Your task to perform on an android device: Check the weather Image 0: 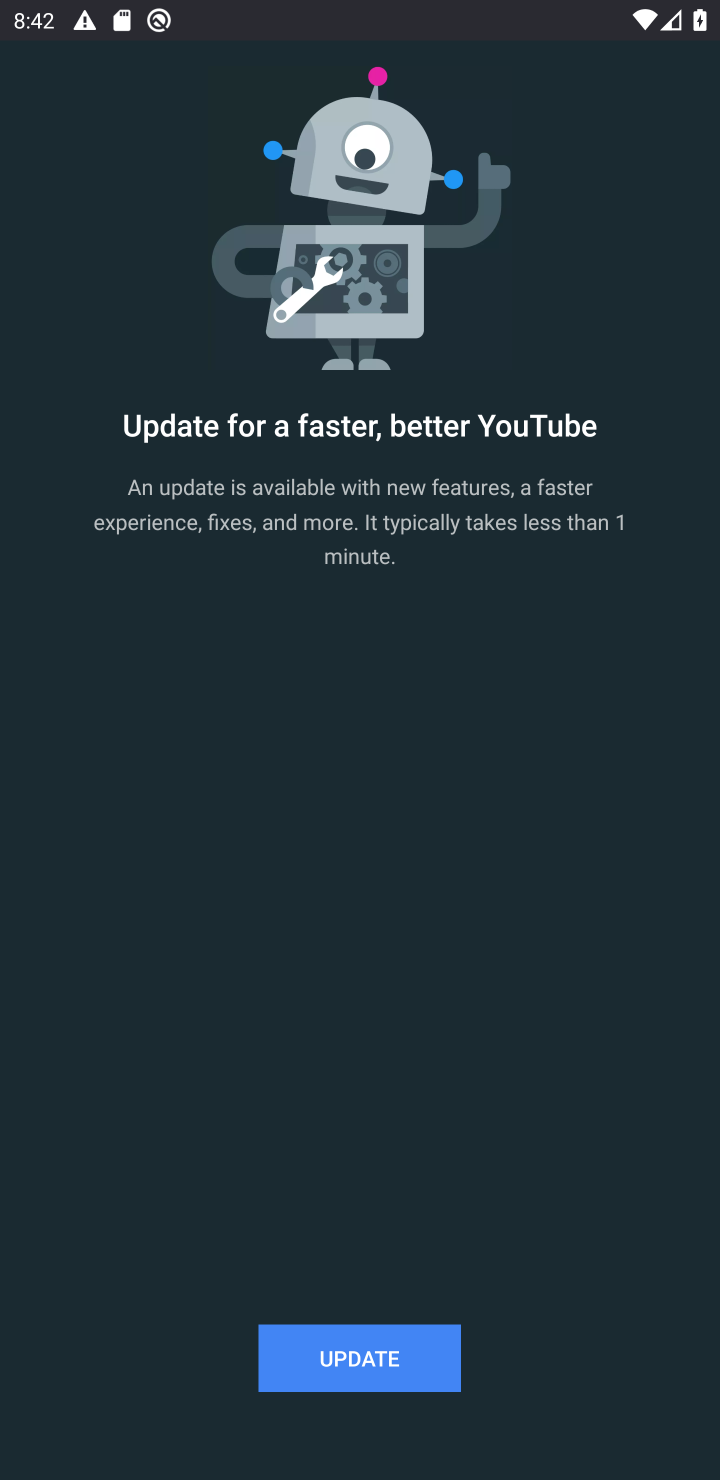
Step 0: press back button
Your task to perform on an android device: Check the weather Image 1: 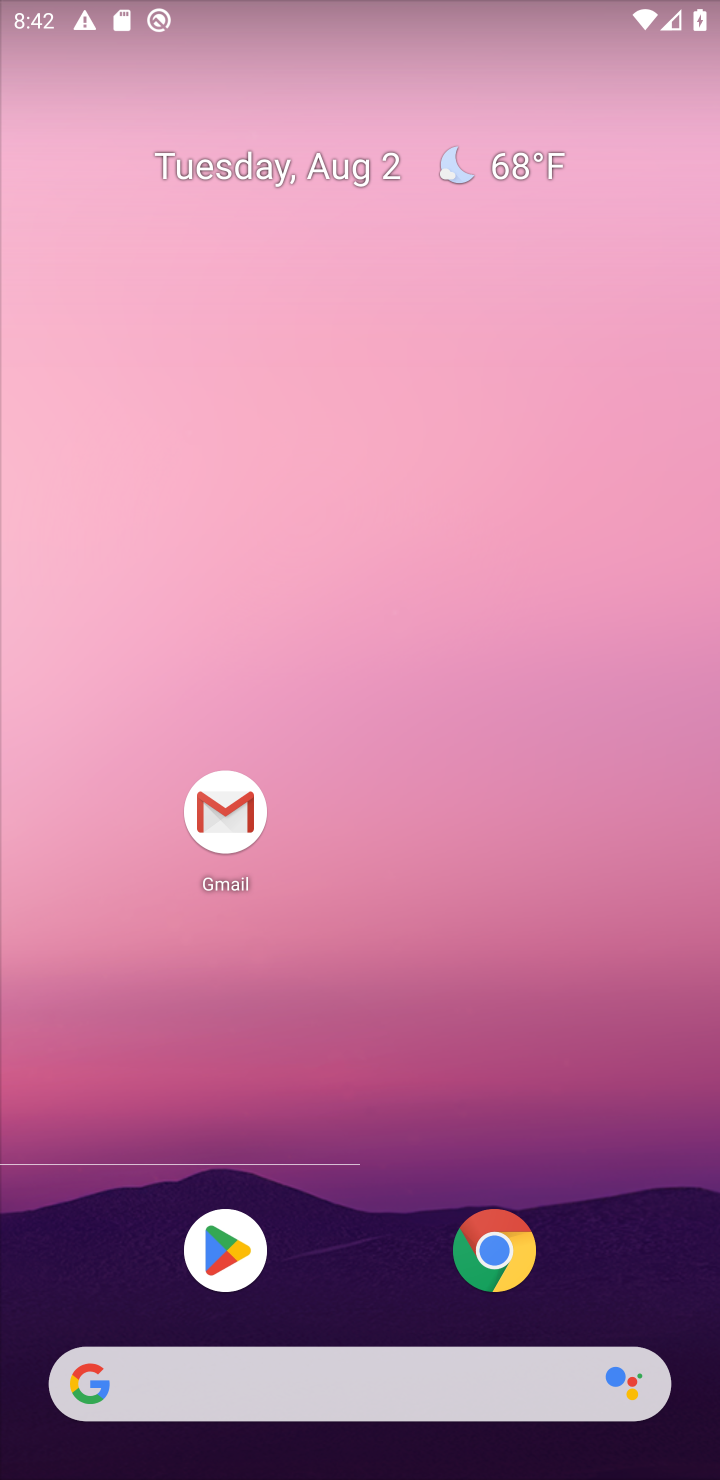
Step 1: drag from (375, 1289) to (357, 34)
Your task to perform on an android device: Check the weather Image 2: 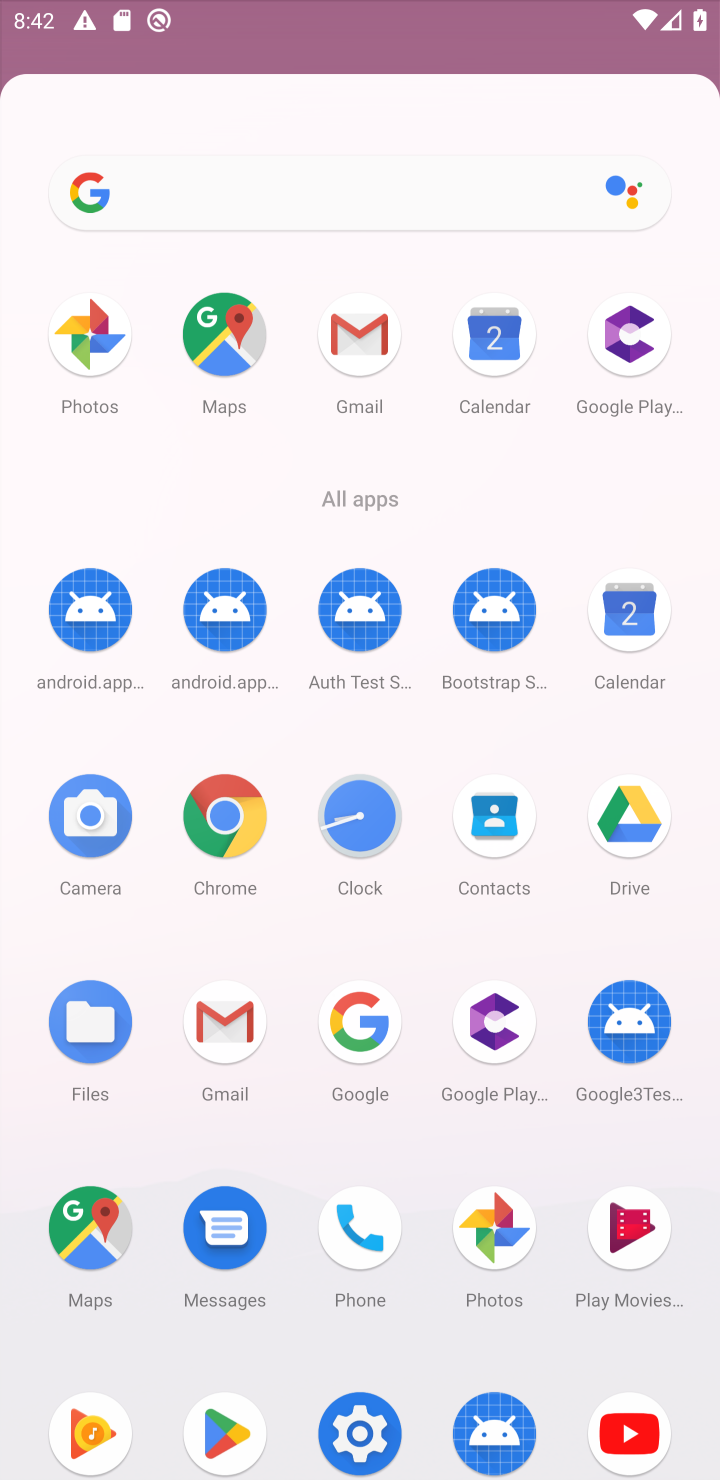
Step 2: drag from (341, 180) to (335, 31)
Your task to perform on an android device: Check the weather Image 3: 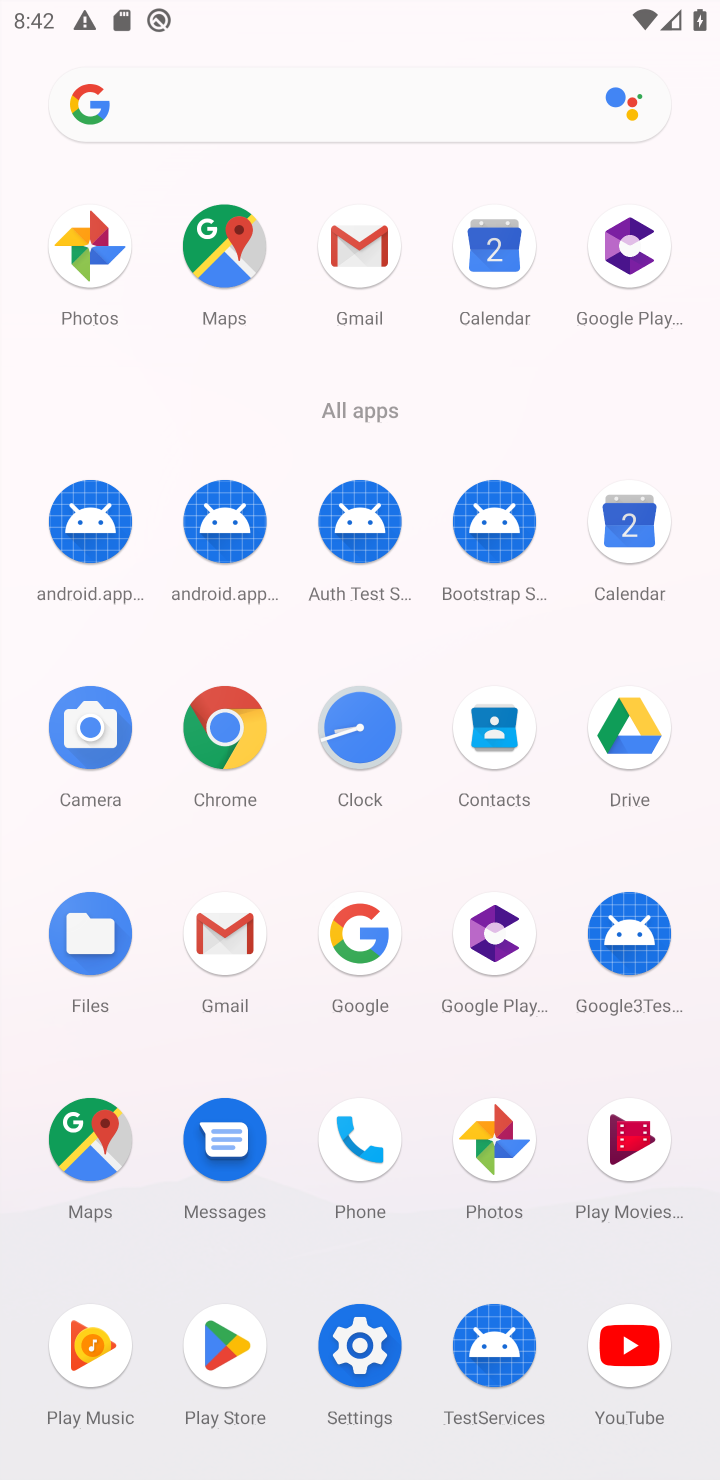
Step 3: click (244, 730)
Your task to perform on an android device: Check the weather Image 4: 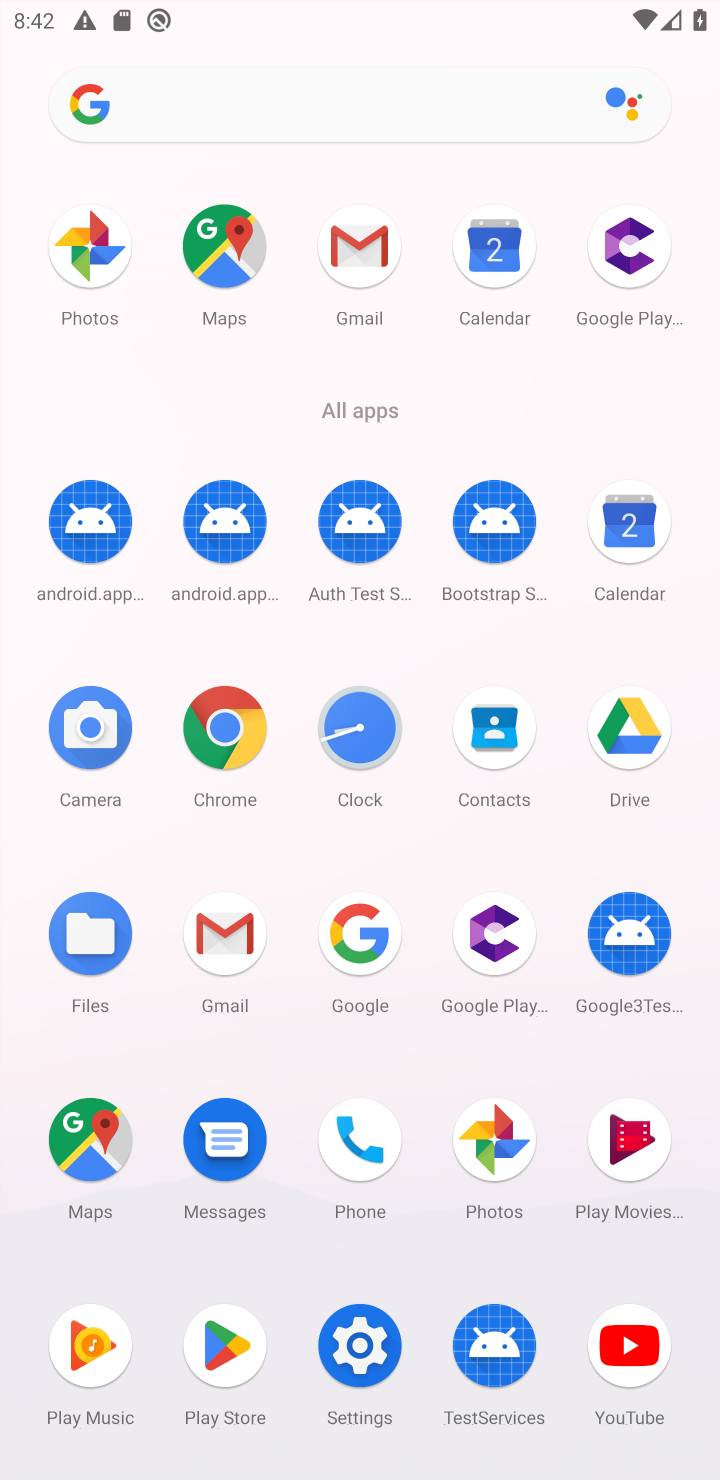
Step 4: click (244, 729)
Your task to perform on an android device: Check the weather Image 5: 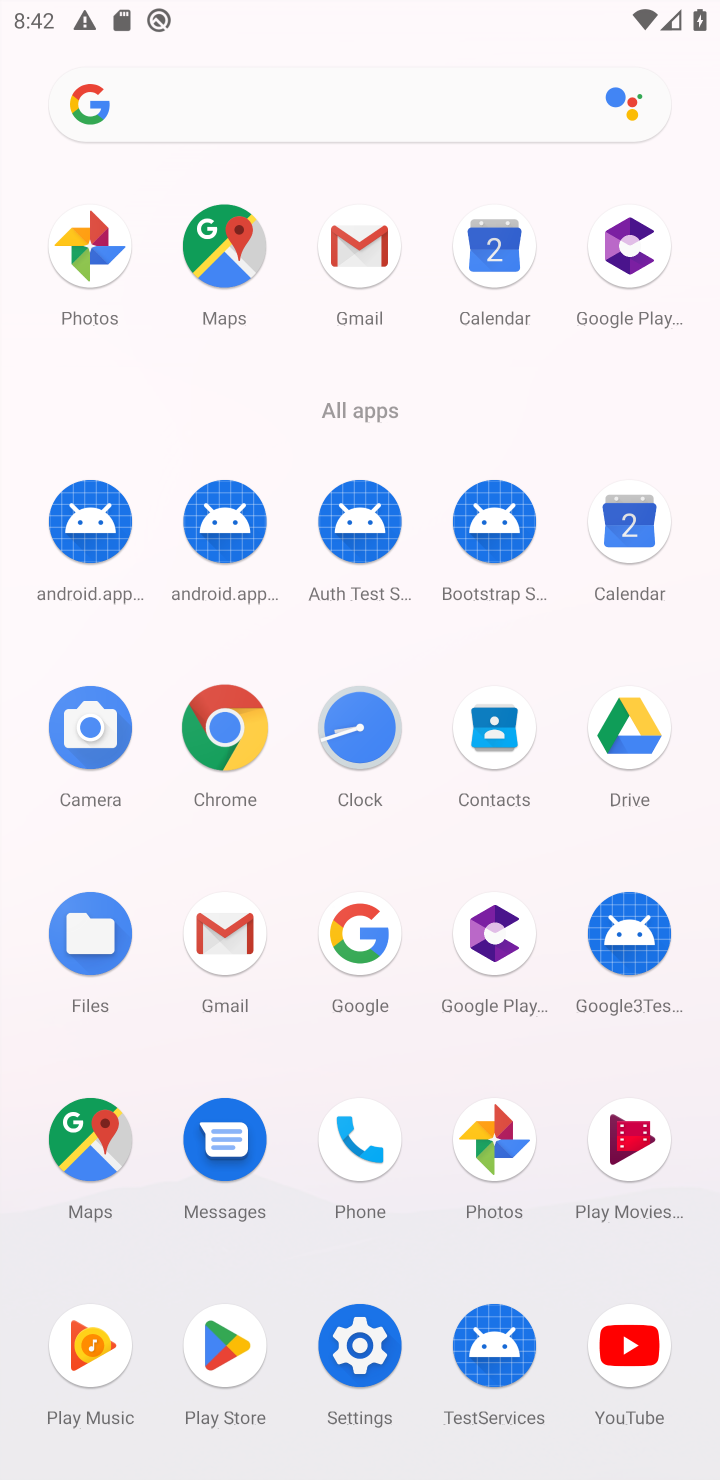
Step 5: click (242, 727)
Your task to perform on an android device: Check the weather Image 6: 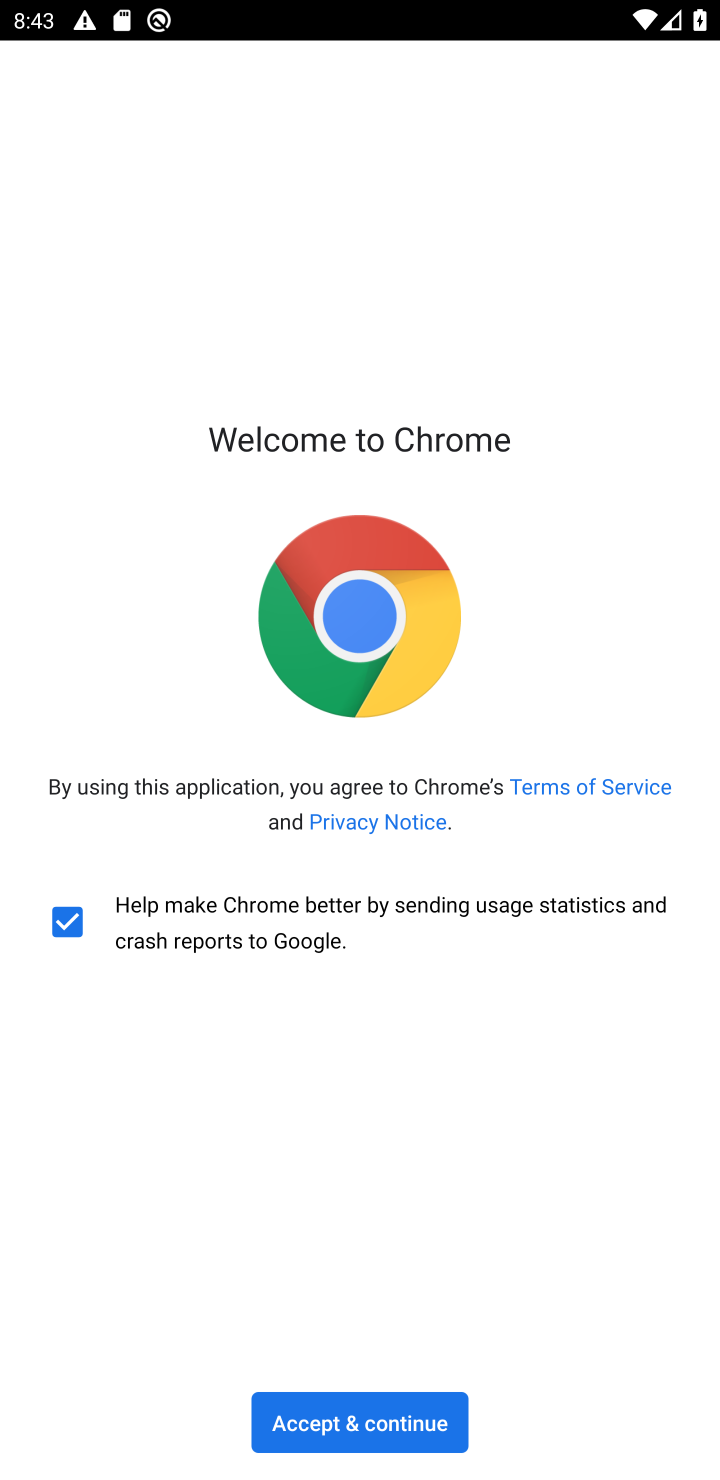
Step 6: click (340, 1415)
Your task to perform on an android device: Check the weather Image 7: 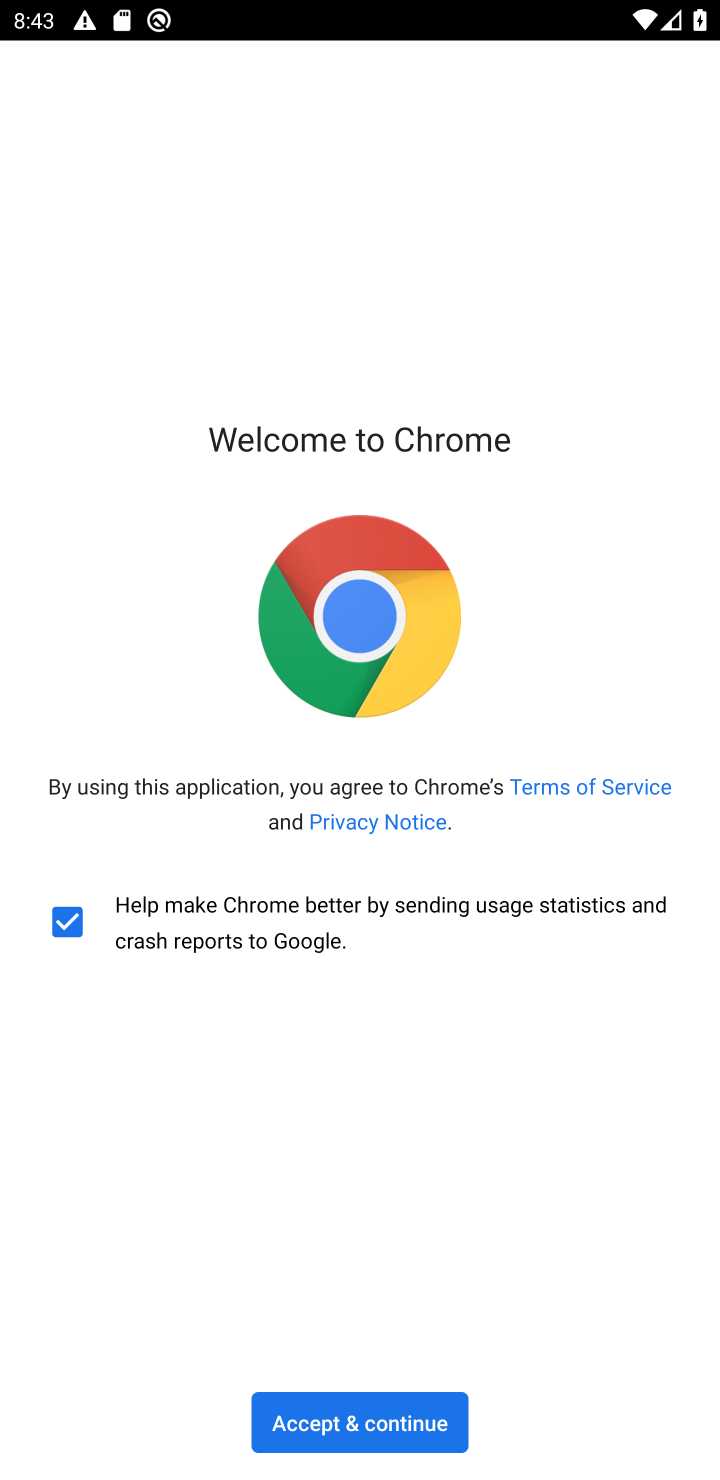
Step 7: click (343, 1415)
Your task to perform on an android device: Check the weather Image 8: 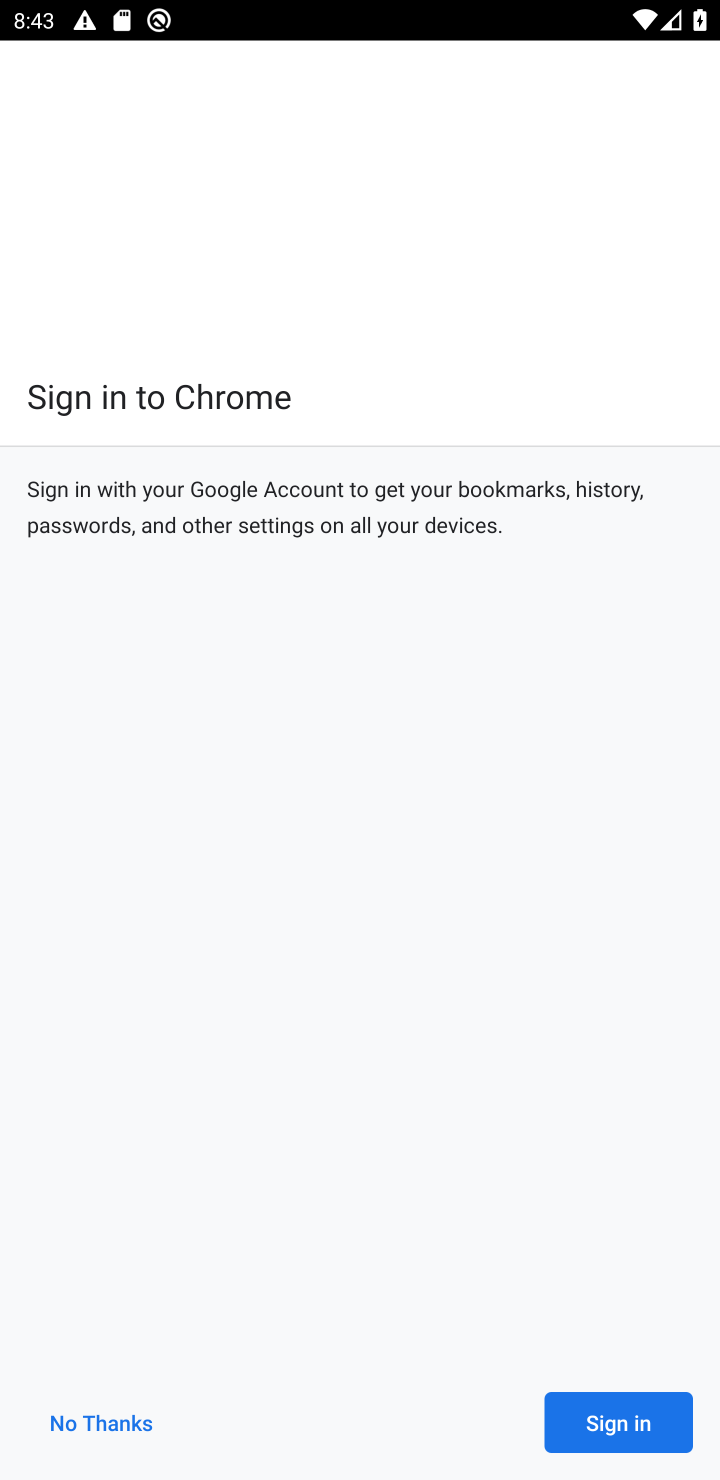
Step 8: click (343, 1415)
Your task to perform on an android device: Check the weather Image 9: 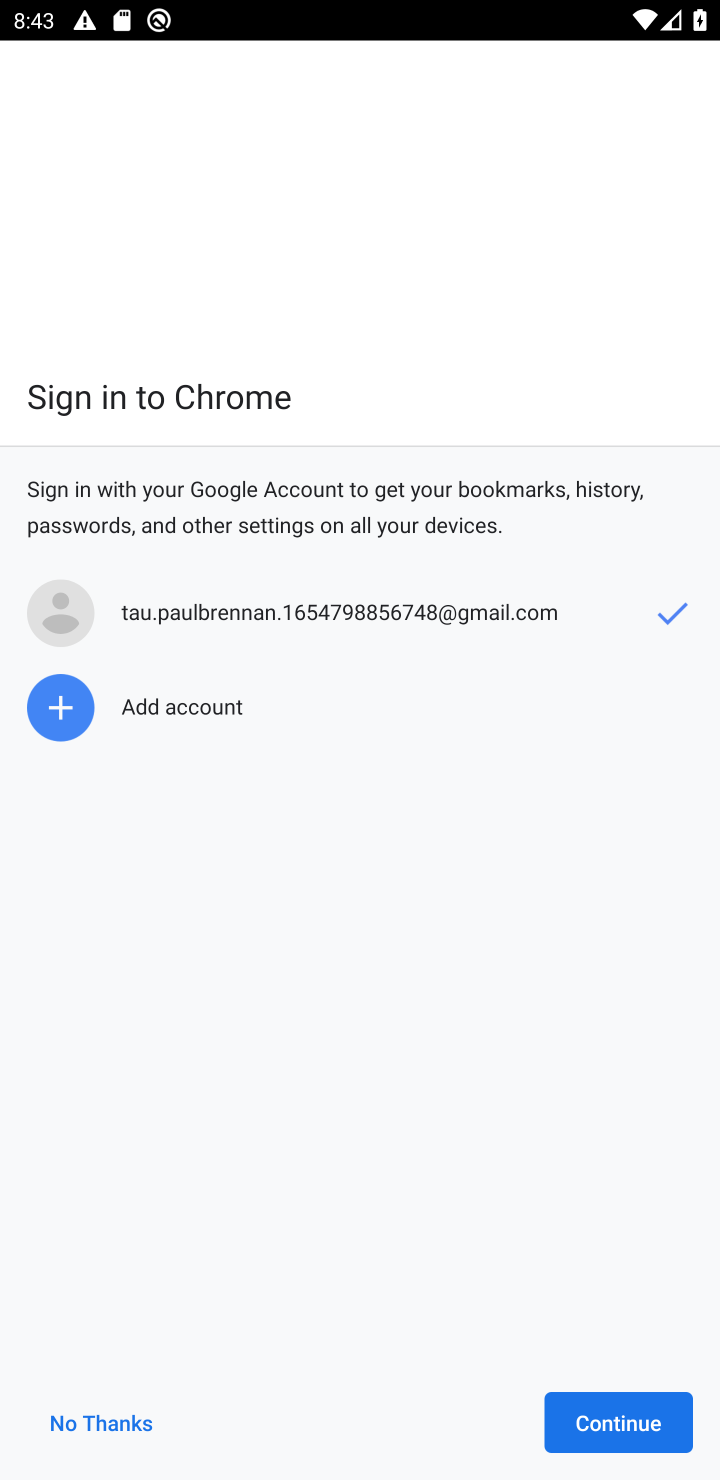
Step 9: click (345, 1413)
Your task to perform on an android device: Check the weather Image 10: 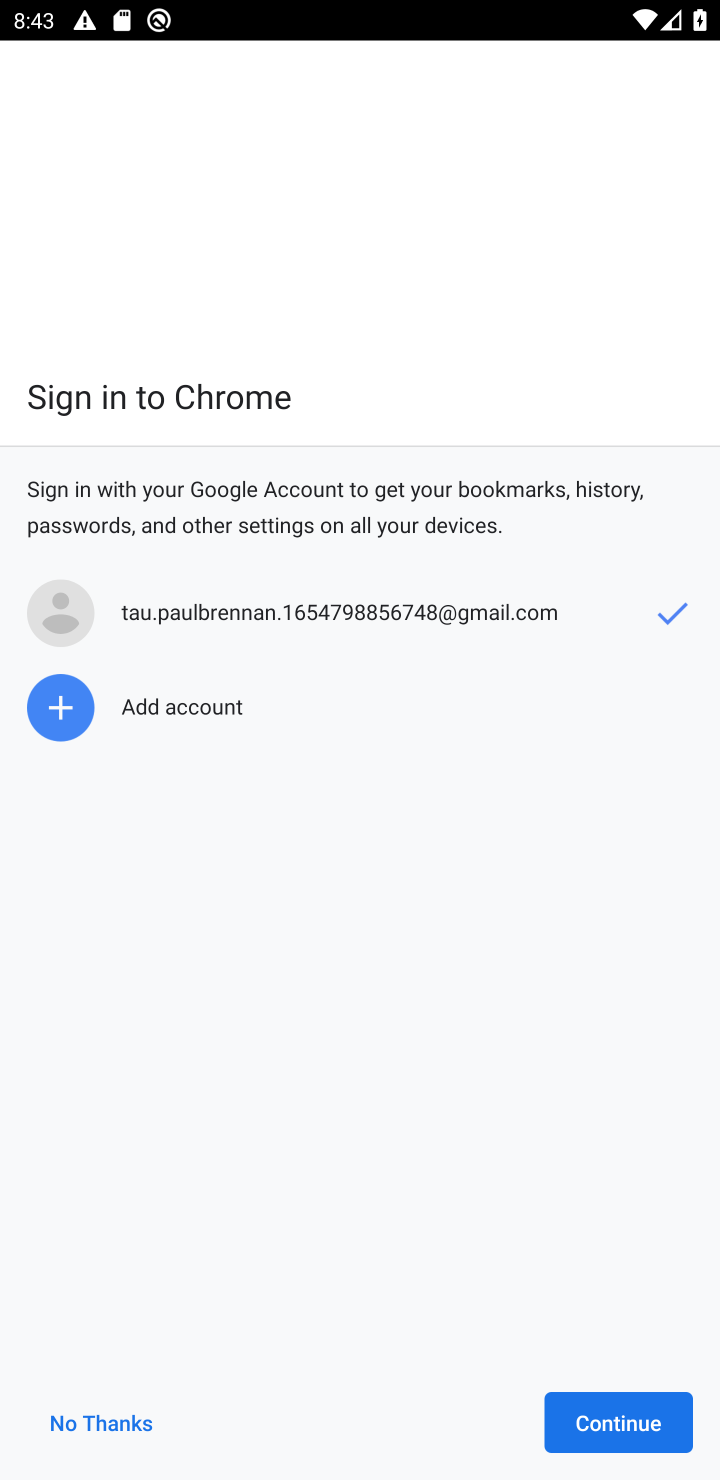
Step 10: click (374, 1401)
Your task to perform on an android device: Check the weather Image 11: 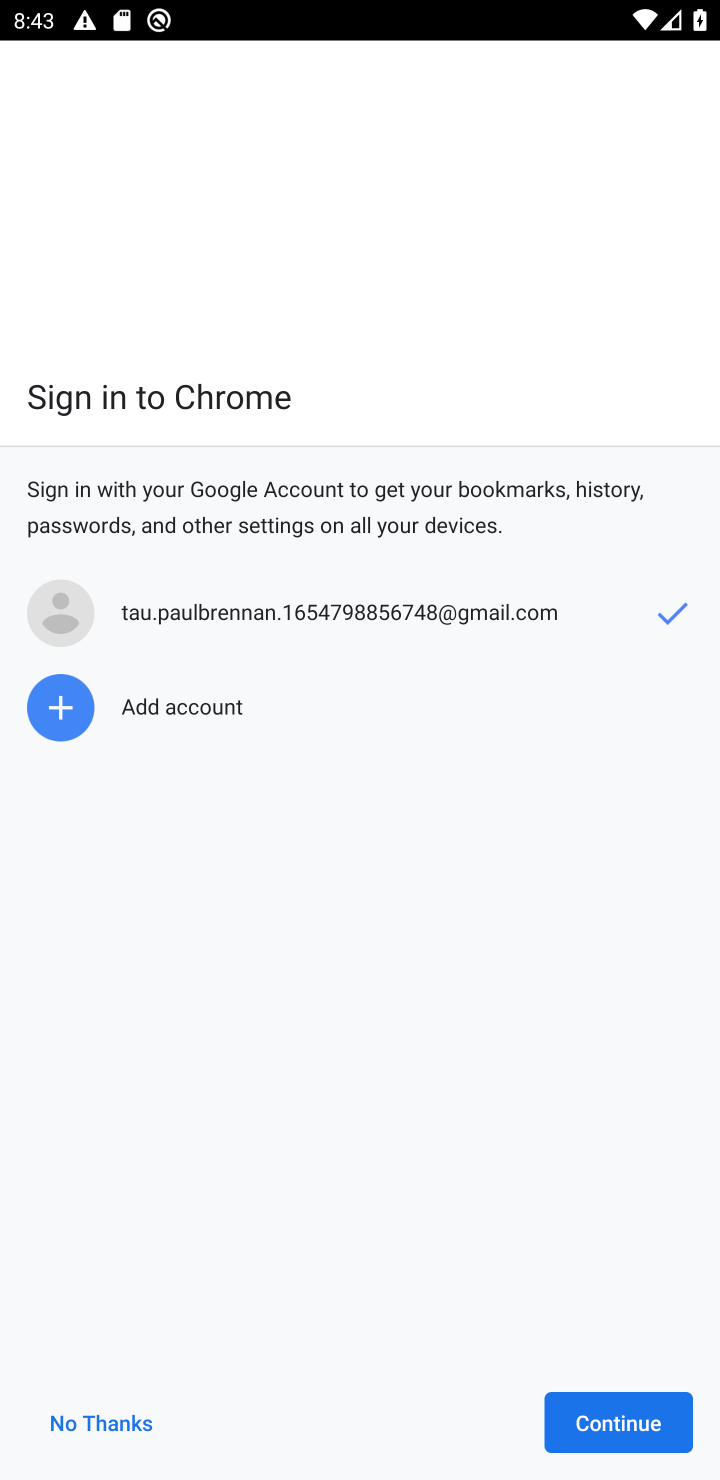
Step 11: click (374, 1401)
Your task to perform on an android device: Check the weather Image 12: 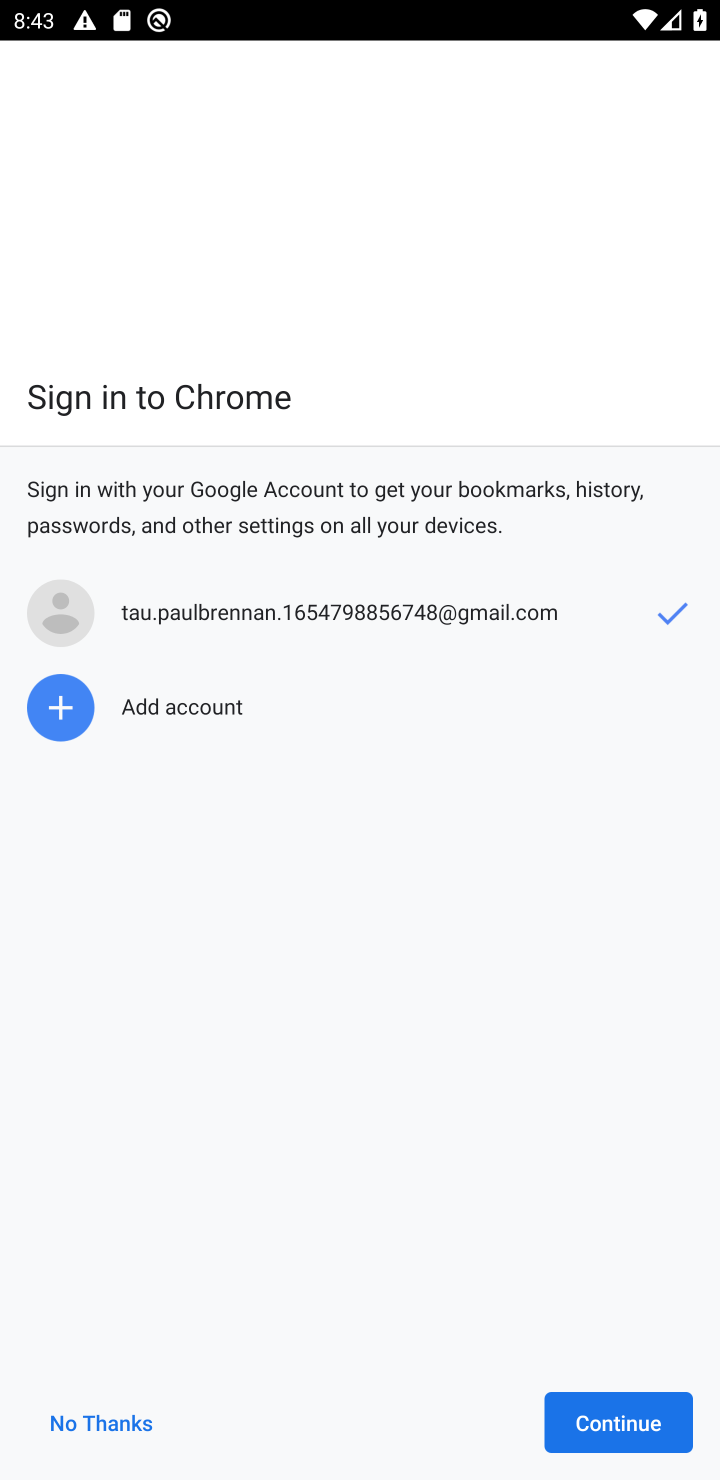
Step 12: click (609, 1416)
Your task to perform on an android device: Check the weather Image 13: 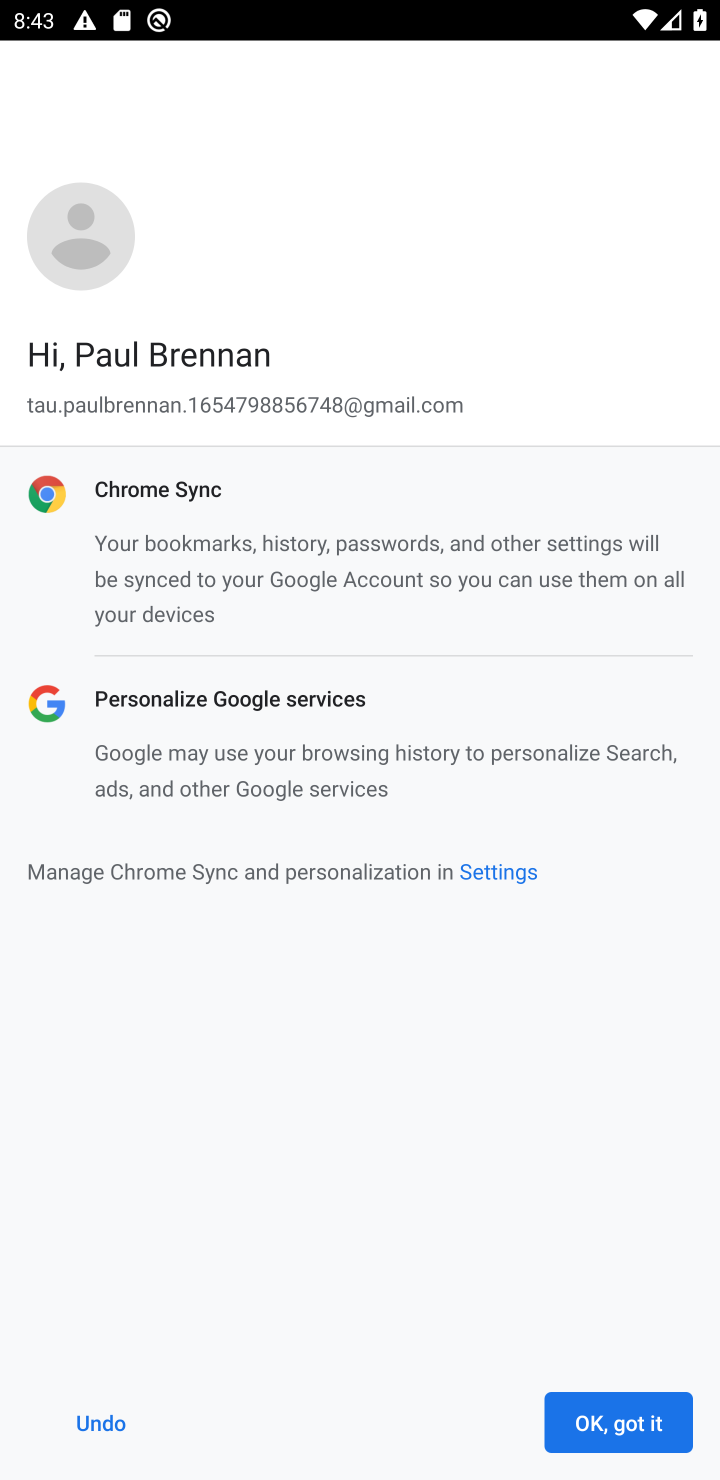
Step 13: click (612, 1407)
Your task to perform on an android device: Check the weather Image 14: 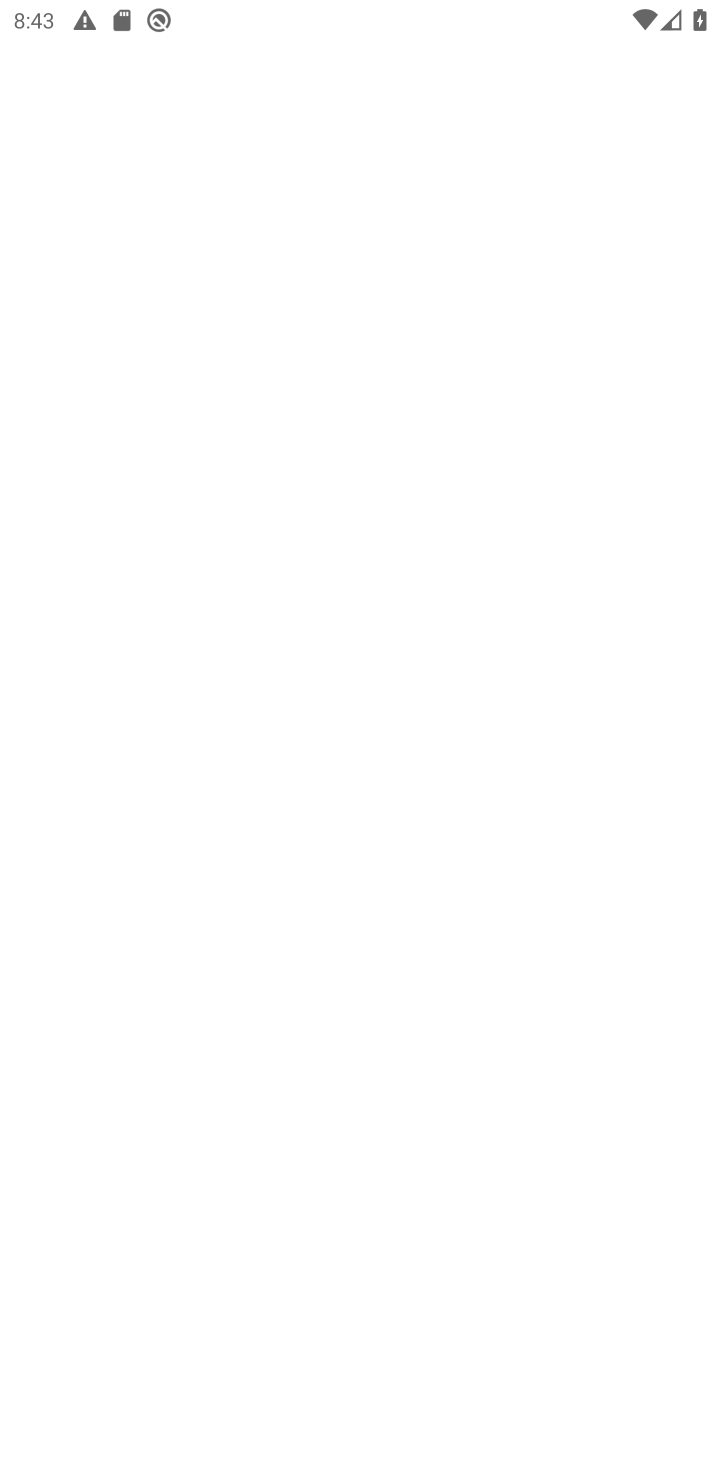
Step 14: click (612, 1405)
Your task to perform on an android device: Check the weather Image 15: 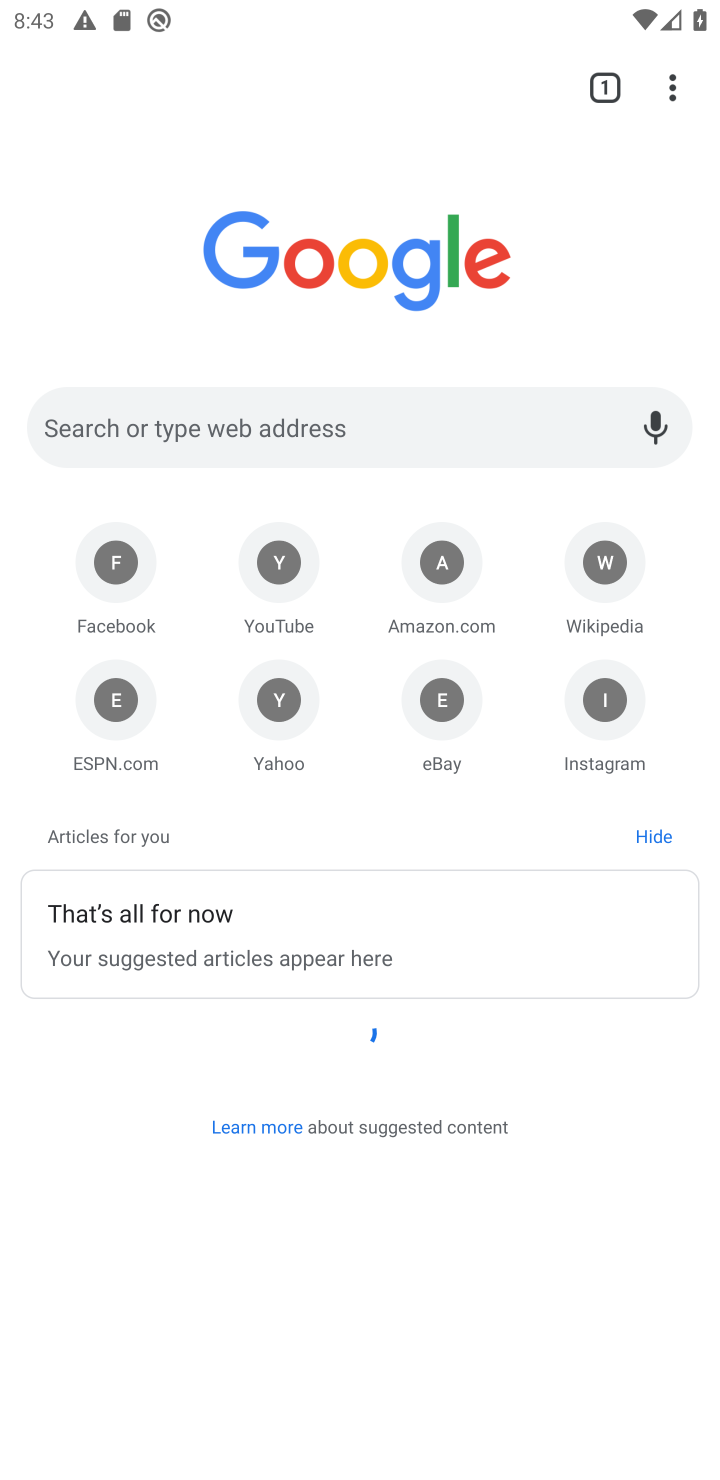
Step 15: click (139, 409)
Your task to perform on an android device: Check the weather Image 16: 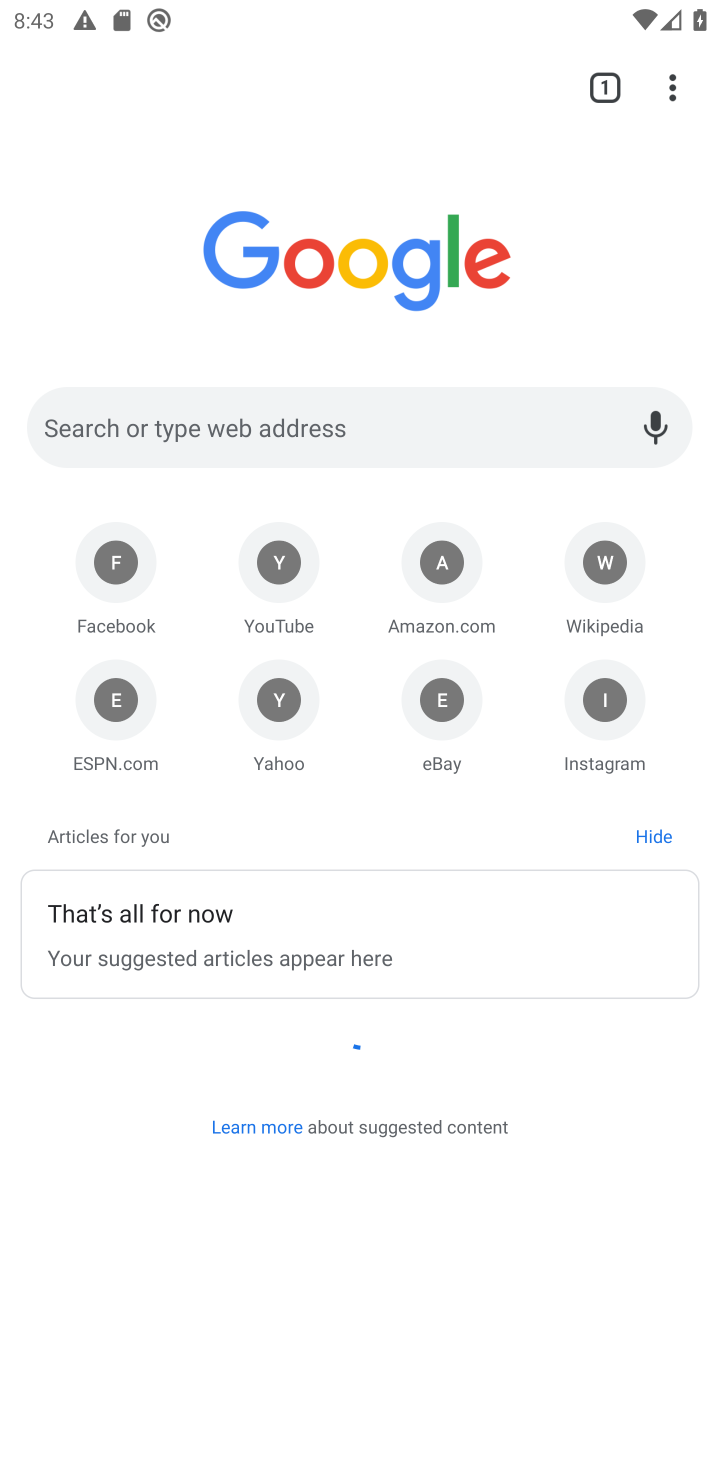
Step 16: click (139, 418)
Your task to perform on an android device: Check the weather Image 17: 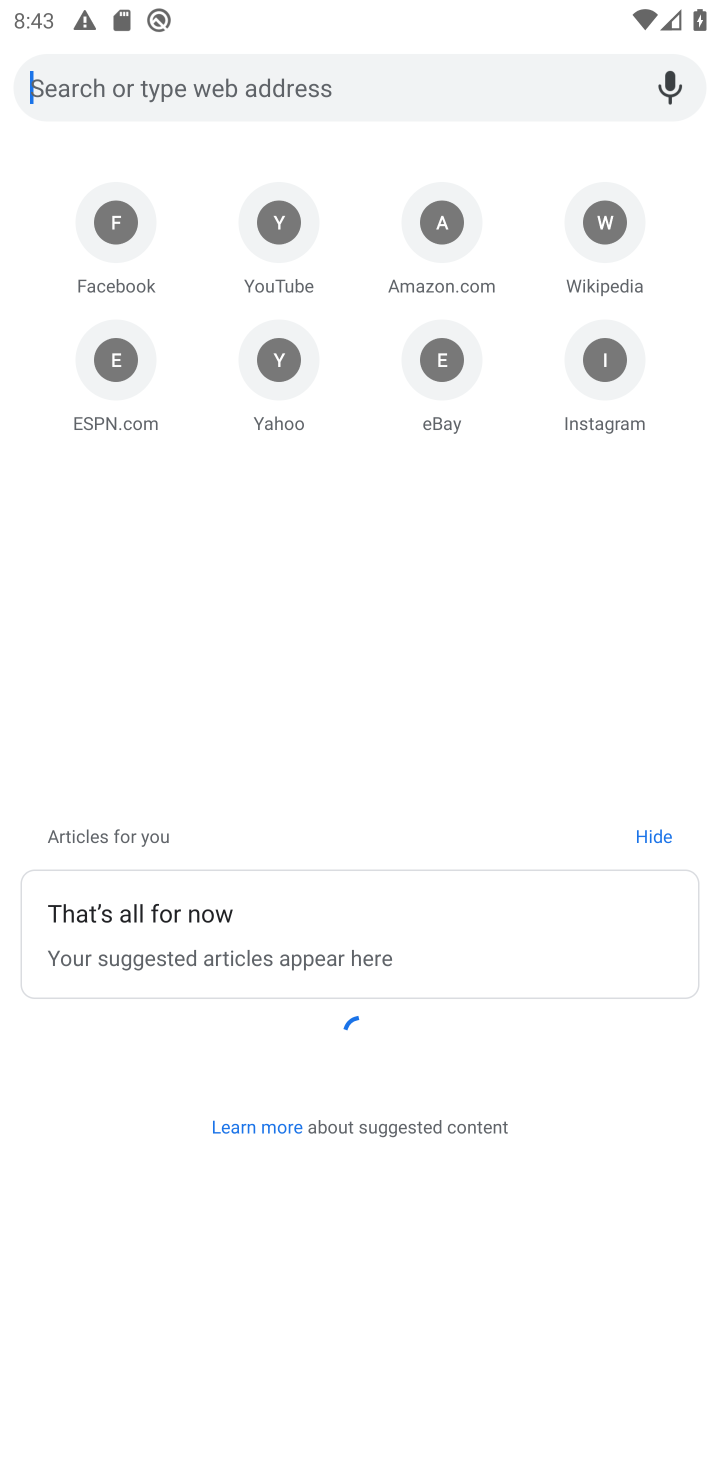
Step 17: click (139, 421)
Your task to perform on an android device: Check the weather Image 18: 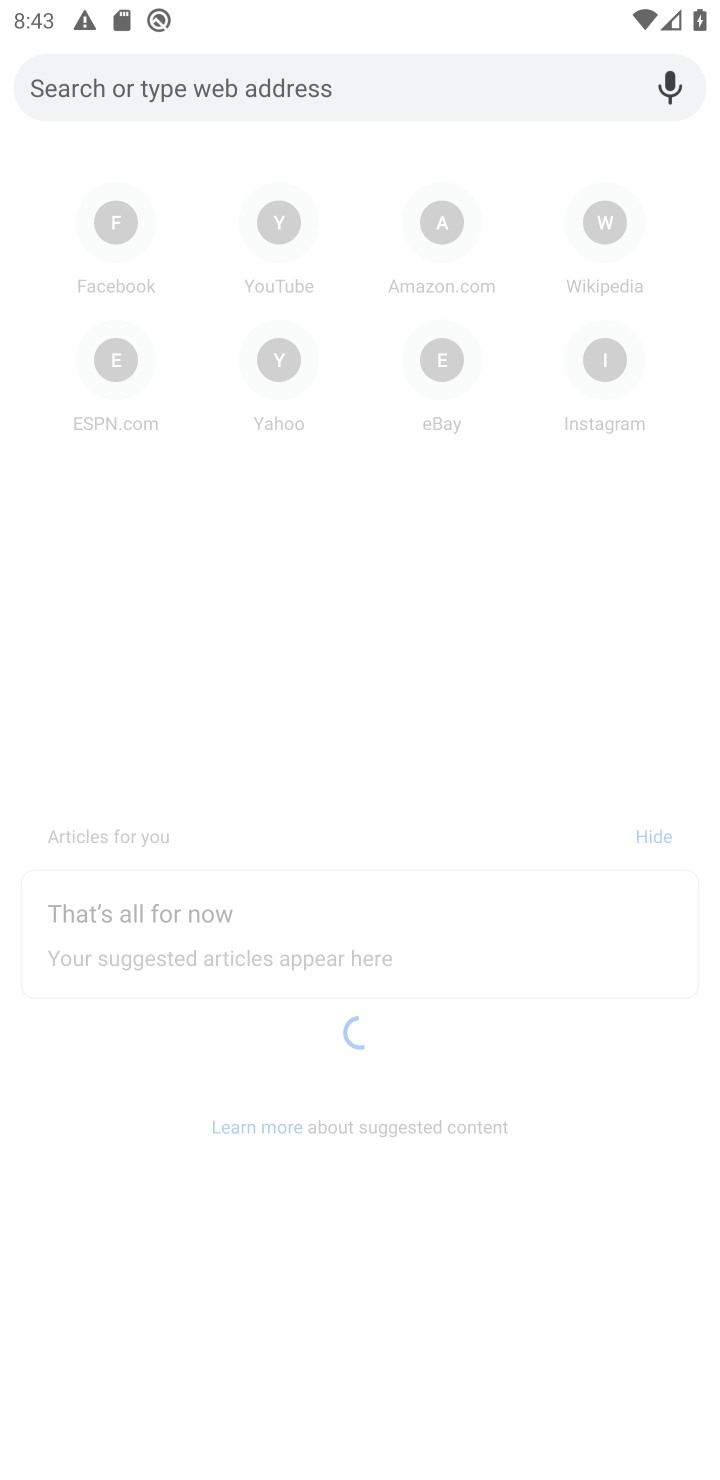
Step 18: click (143, 421)
Your task to perform on an android device: Check the weather Image 19: 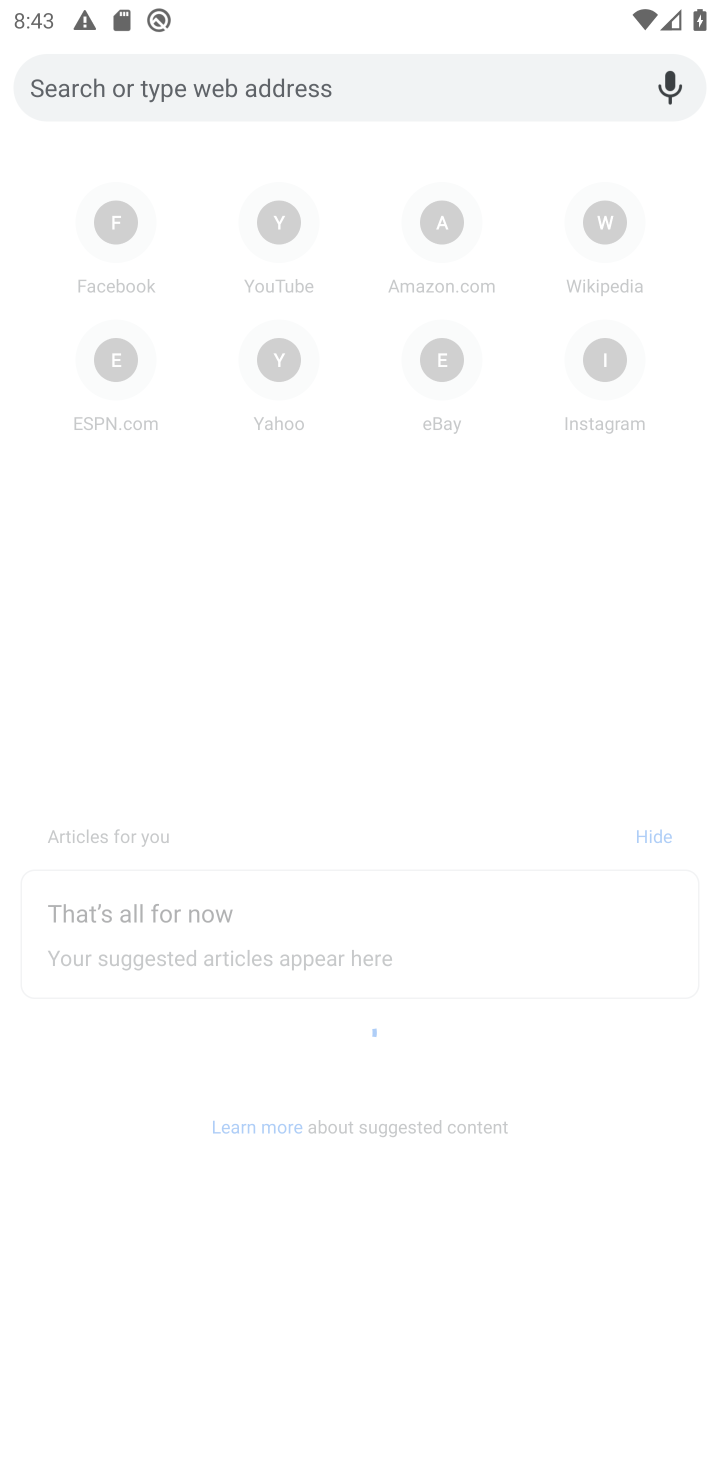
Step 19: drag from (144, 421) to (129, 70)
Your task to perform on an android device: Check the weather Image 20: 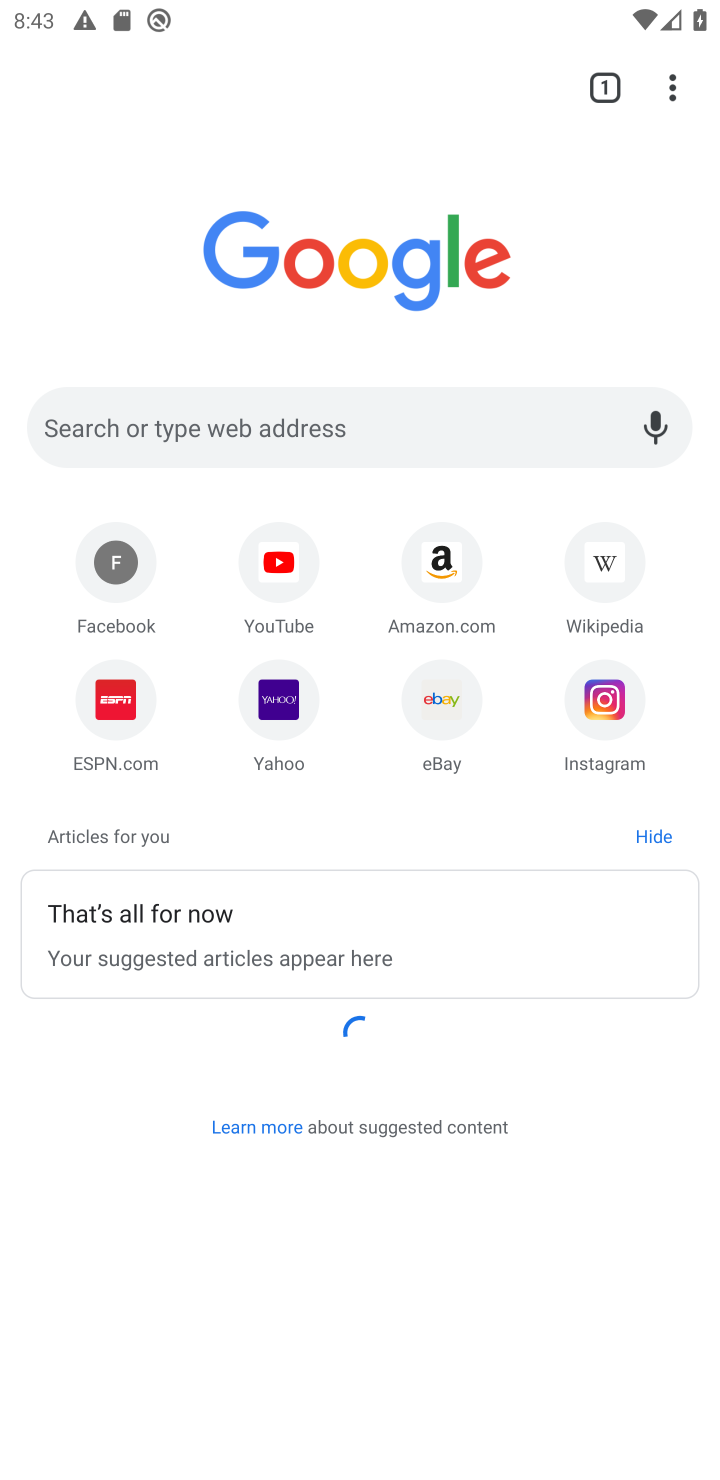
Step 20: click (254, 442)
Your task to perform on an android device: Check the weather Image 21: 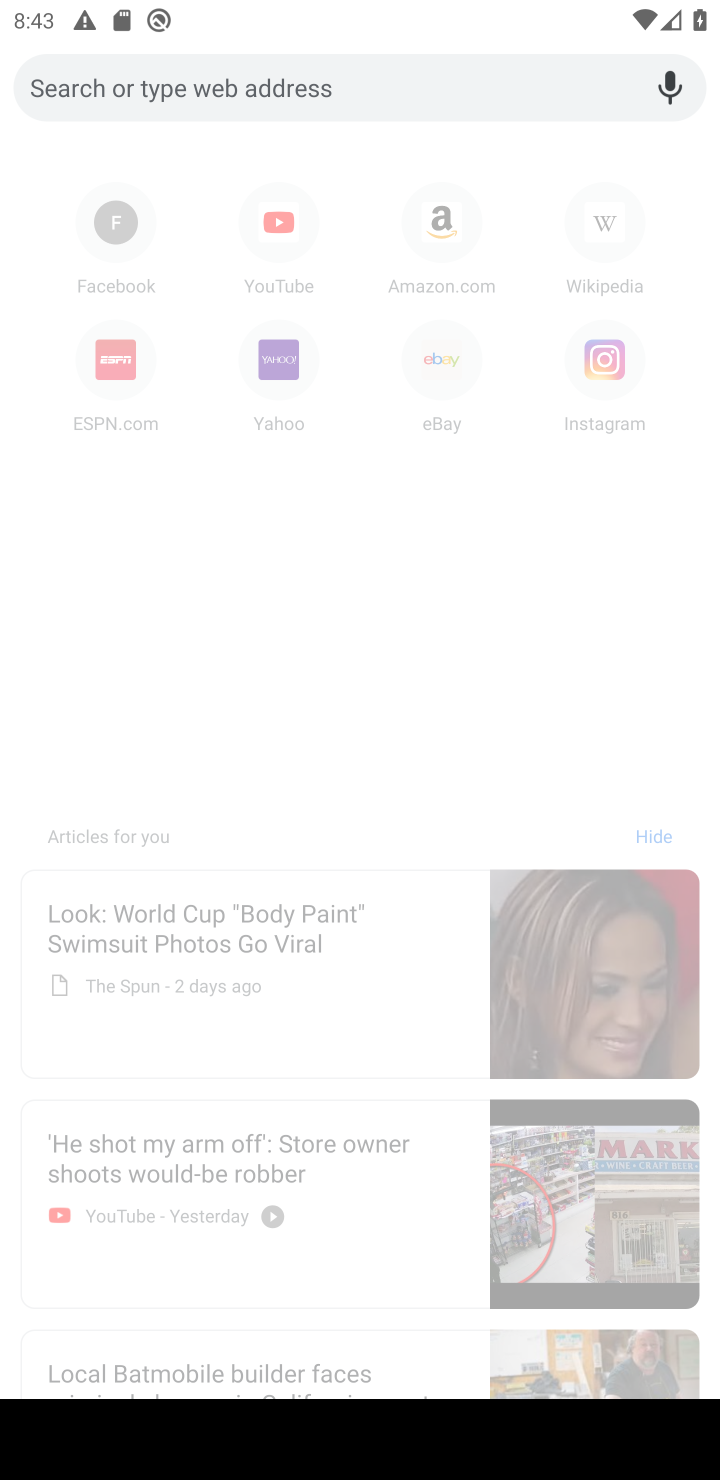
Step 21: click (210, 75)
Your task to perform on an android device: Check the weather Image 22: 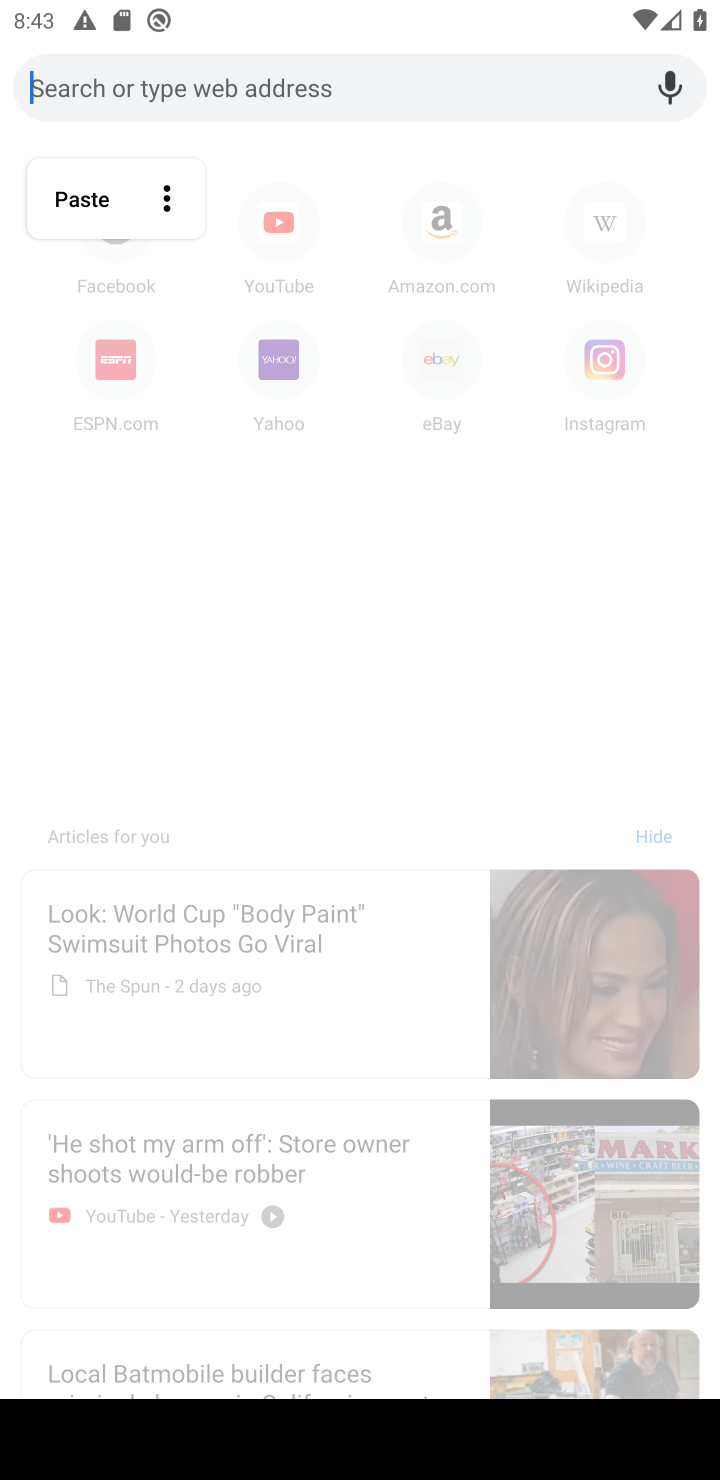
Step 22: type "weather"
Your task to perform on an android device: Check the weather Image 23: 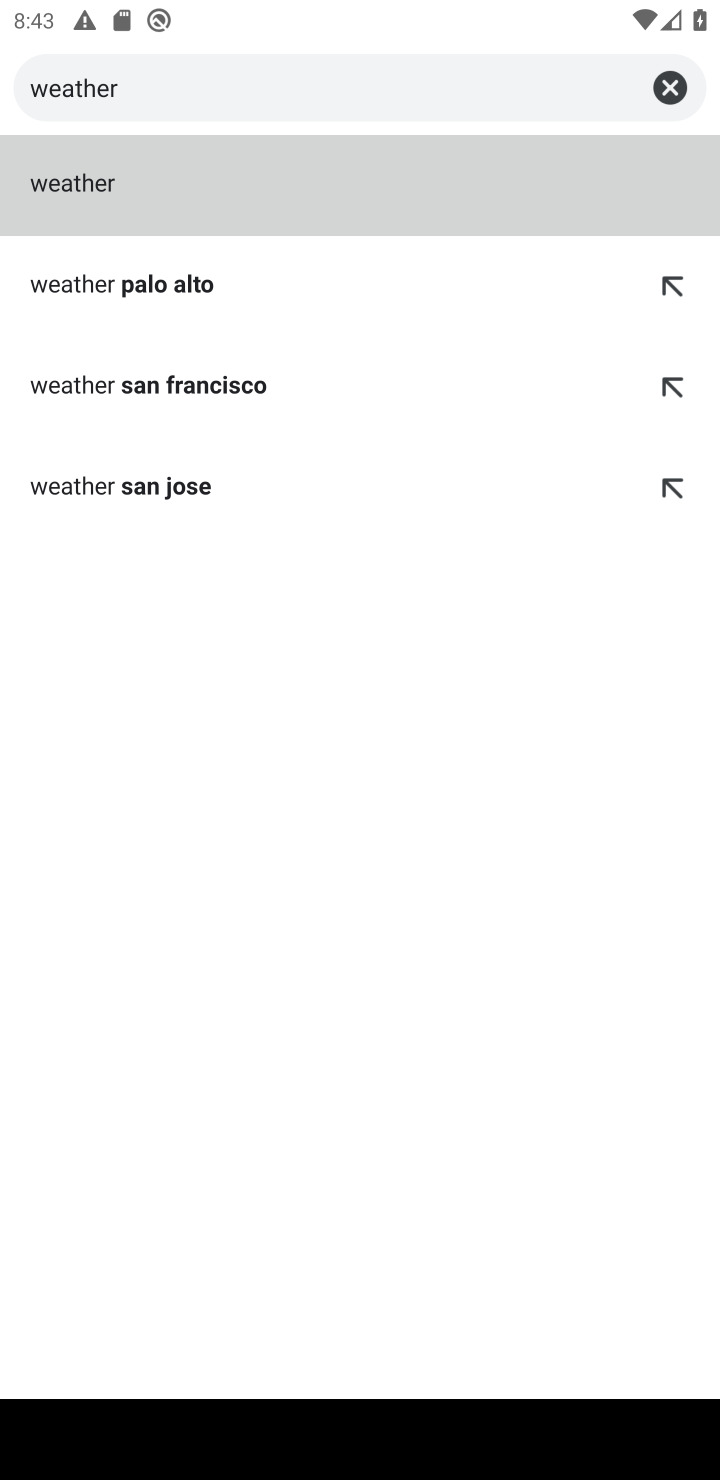
Step 23: click (83, 186)
Your task to perform on an android device: Check the weather Image 24: 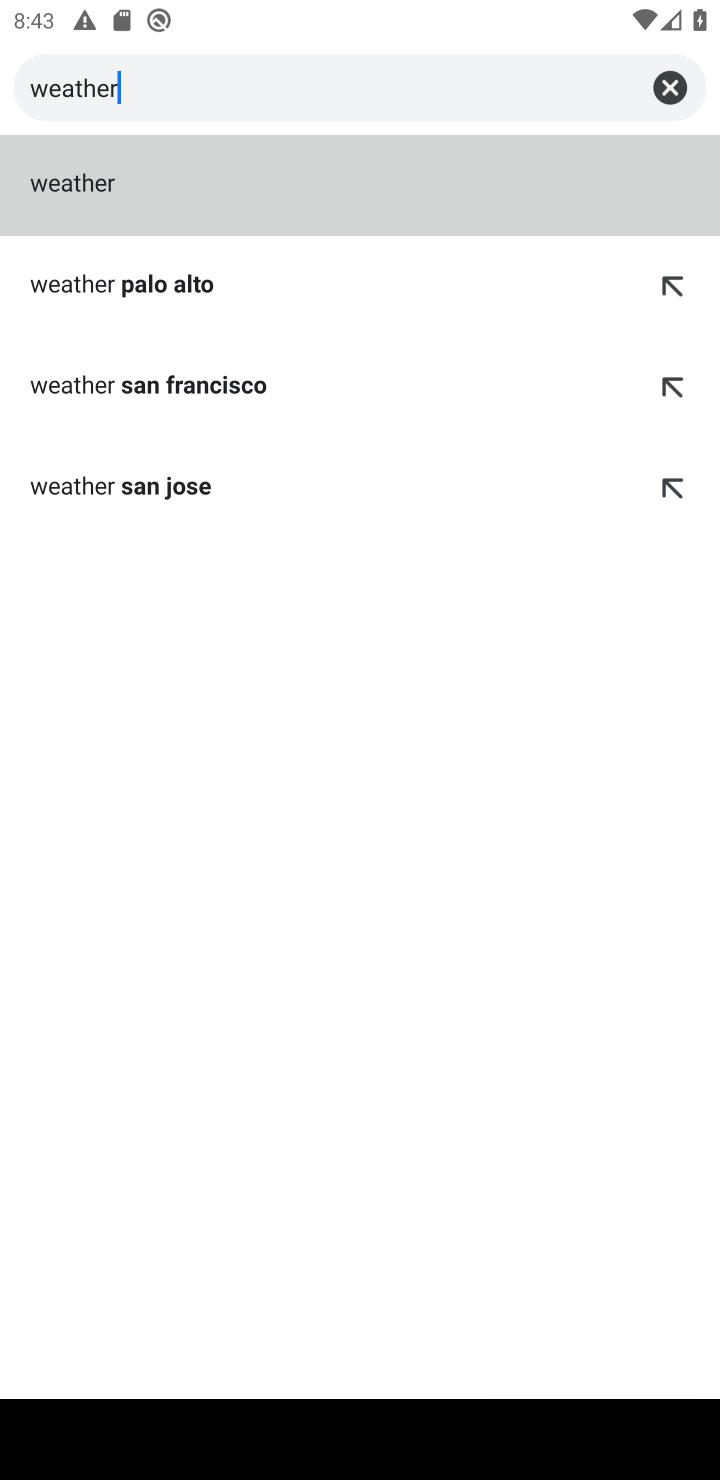
Step 24: click (68, 192)
Your task to perform on an android device: Check the weather Image 25: 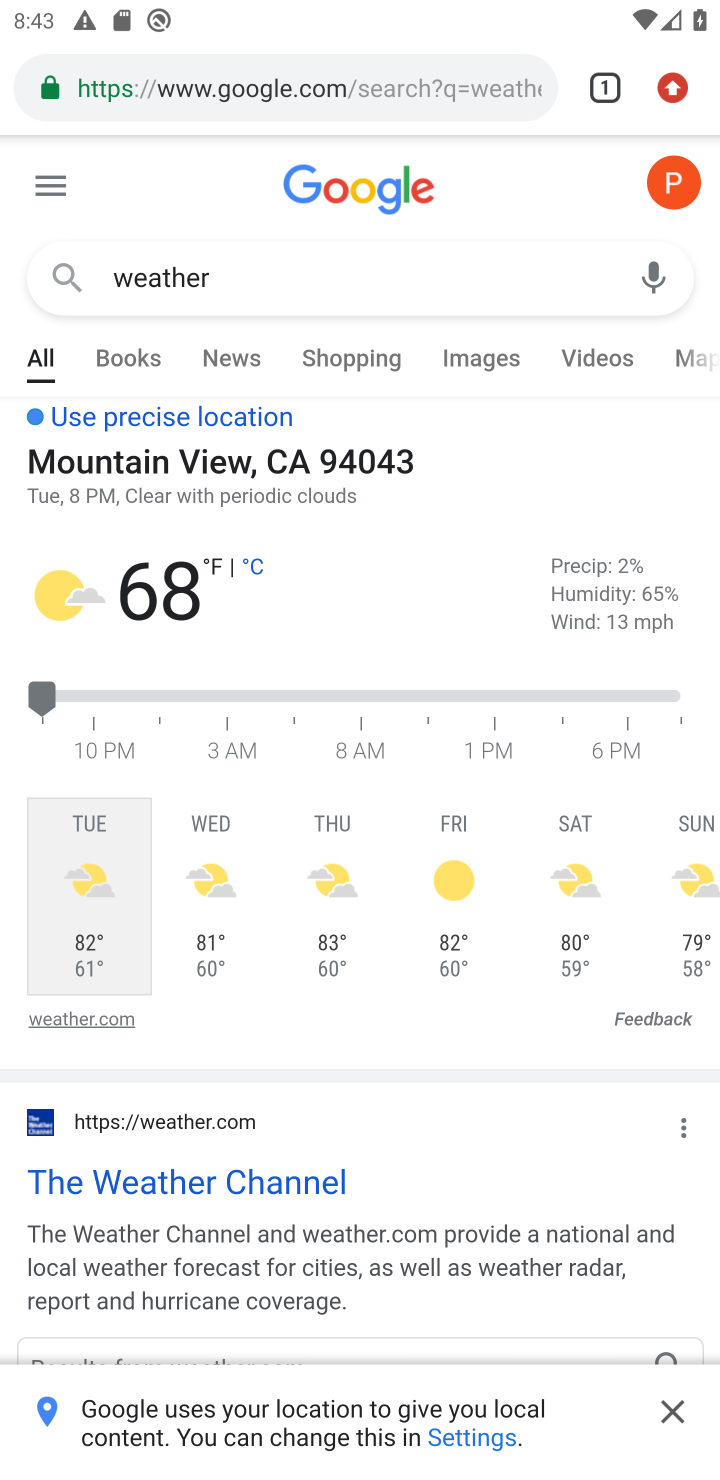
Step 25: task complete